Your task to perform on an android device: move an email to a new category in the gmail app Image 0: 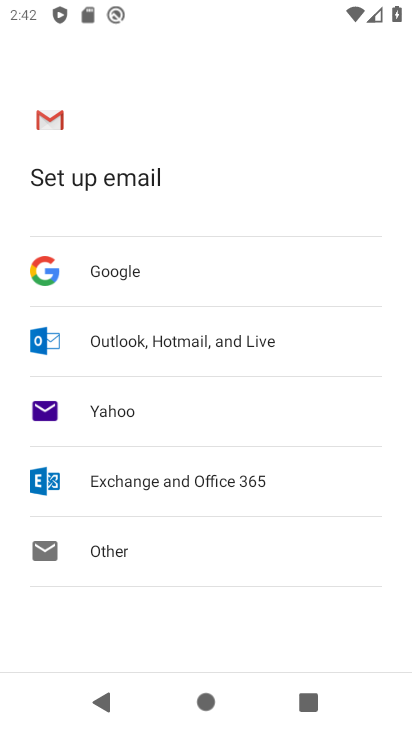
Step 0: press home button
Your task to perform on an android device: move an email to a new category in the gmail app Image 1: 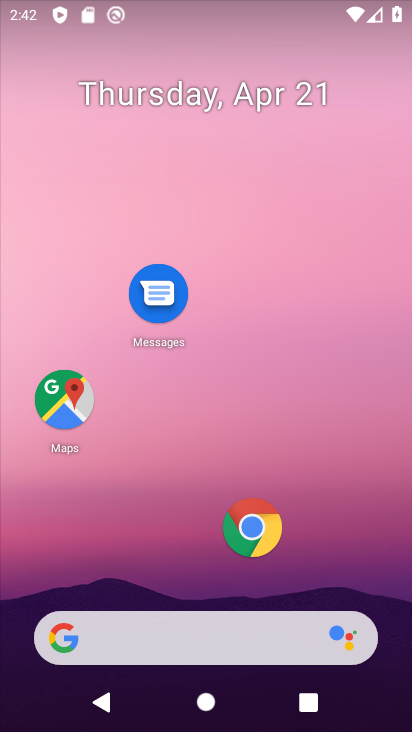
Step 1: drag from (209, 595) to (247, 267)
Your task to perform on an android device: move an email to a new category in the gmail app Image 2: 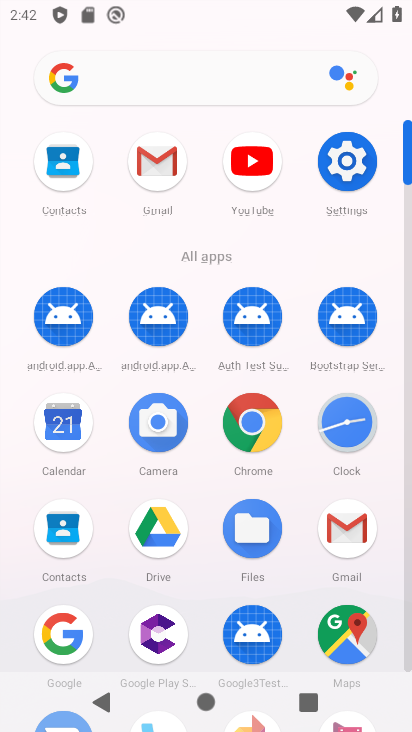
Step 2: click (160, 174)
Your task to perform on an android device: move an email to a new category in the gmail app Image 3: 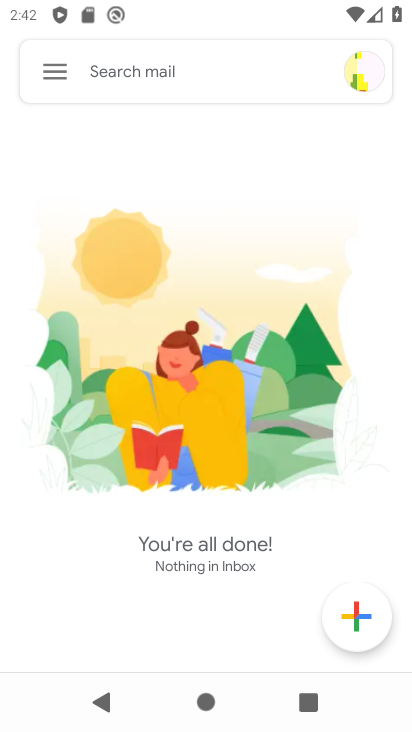
Step 3: click (60, 64)
Your task to perform on an android device: move an email to a new category in the gmail app Image 4: 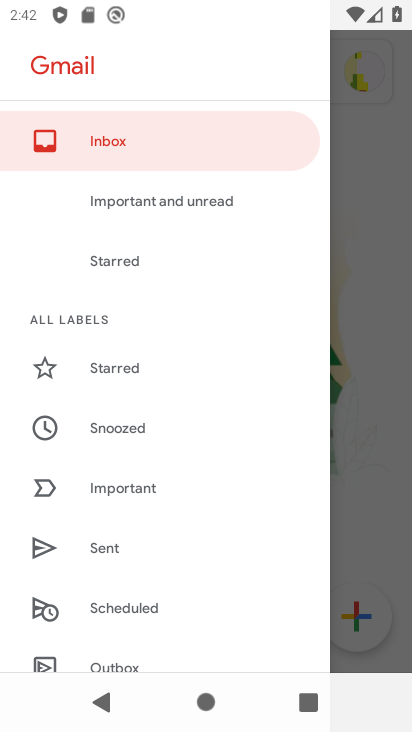
Step 4: drag from (149, 632) to (172, 254)
Your task to perform on an android device: move an email to a new category in the gmail app Image 5: 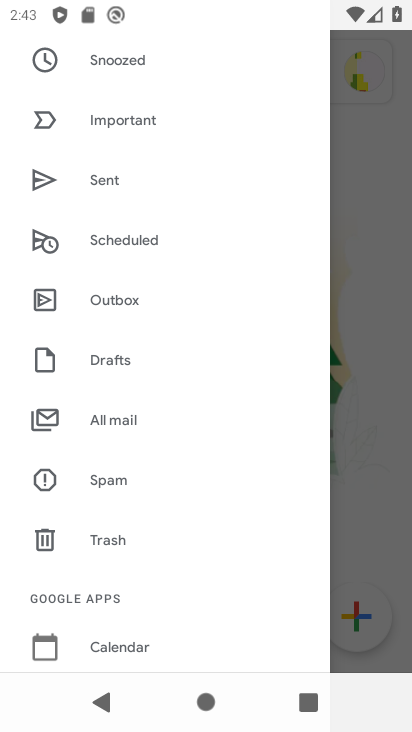
Step 5: click (127, 416)
Your task to perform on an android device: move an email to a new category in the gmail app Image 6: 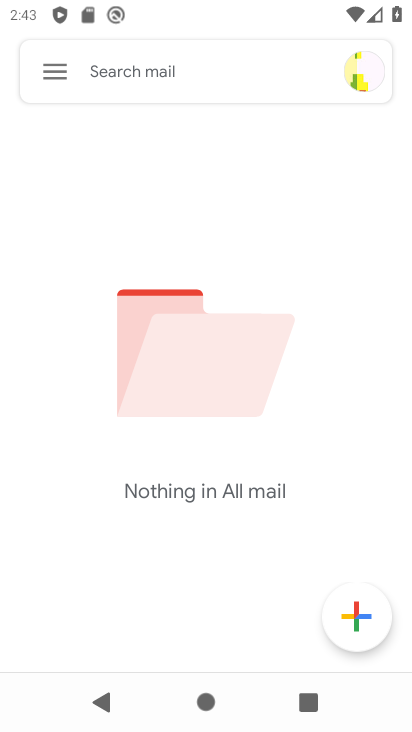
Step 6: task complete